Your task to perform on an android device: turn on airplane mode Image 0: 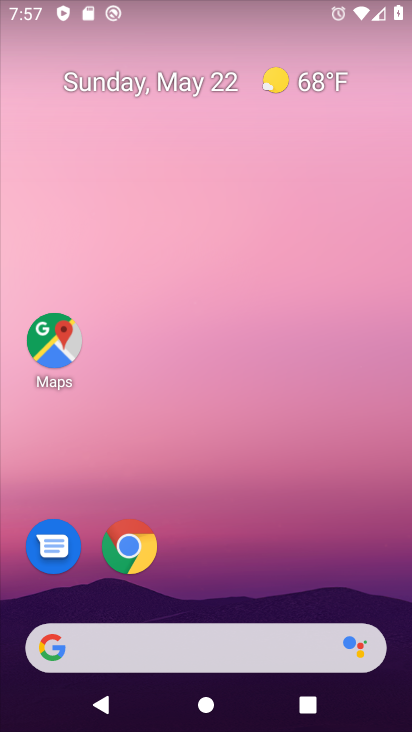
Step 0: click (154, 254)
Your task to perform on an android device: turn on airplane mode Image 1: 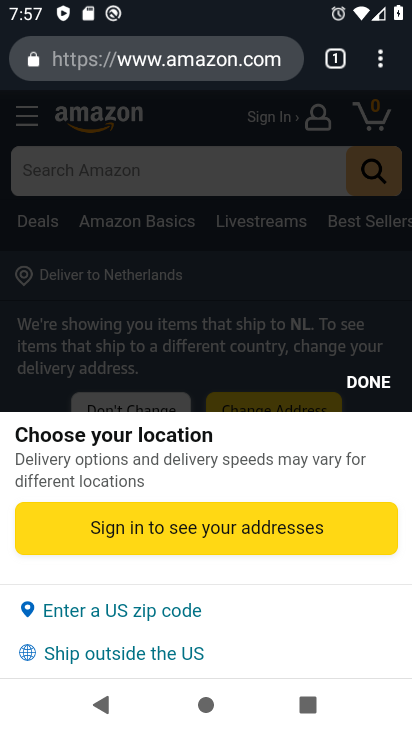
Step 1: press back button
Your task to perform on an android device: turn on airplane mode Image 2: 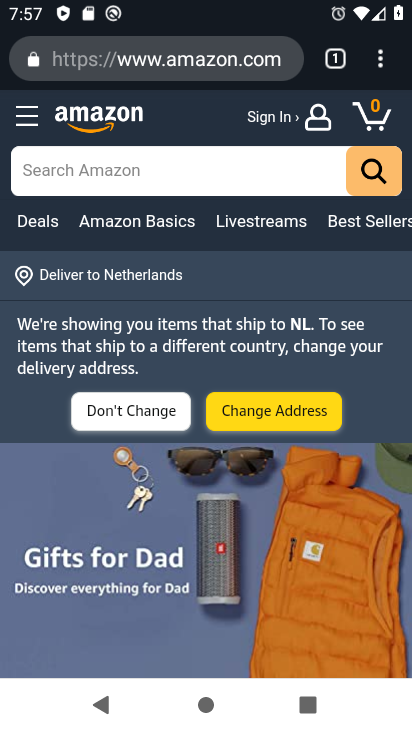
Step 2: press home button
Your task to perform on an android device: turn on airplane mode Image 3: 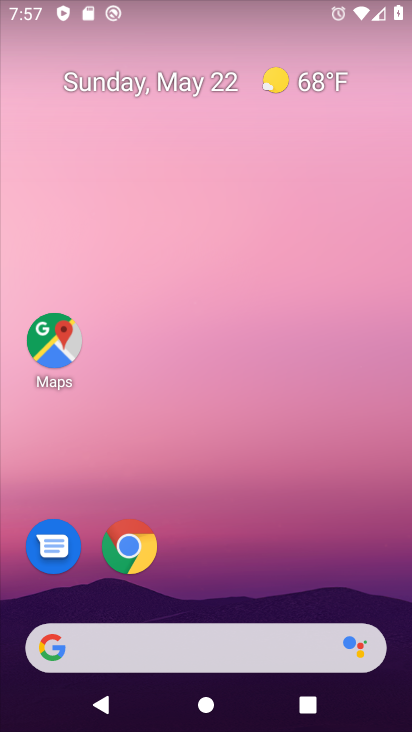
Step 3: drag from (251, 658) to (164, 41)
Your task to perform on an android device: turn on airplane mode Image 4: 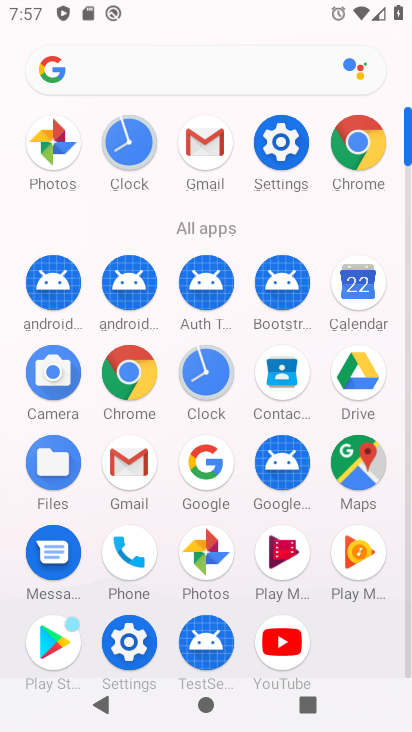
Step 4: click (289, 151)
Your task to perform on an android device: turn on airplane mode Image 5: 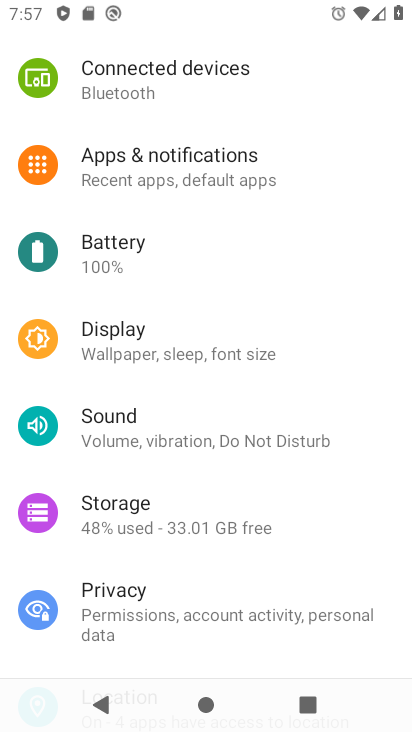
Step 5: drag from (139, 132) to (191, 507)
Your task to perform on an android device: turn on airplane mode Image 6: 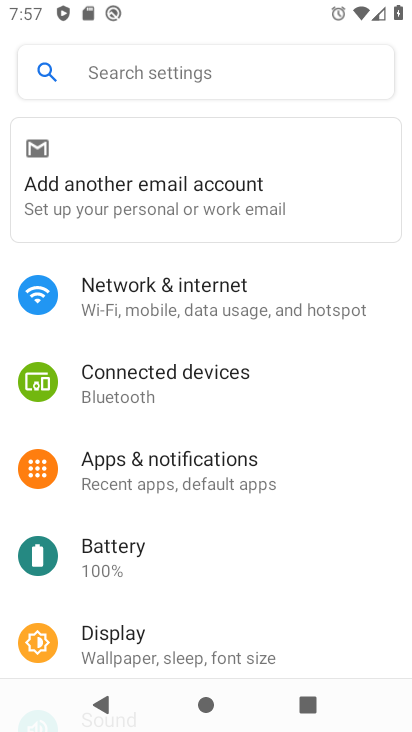
Step 6: click (187, 296)
Your task to perform on an android device: turn on airplane mode Image 7: 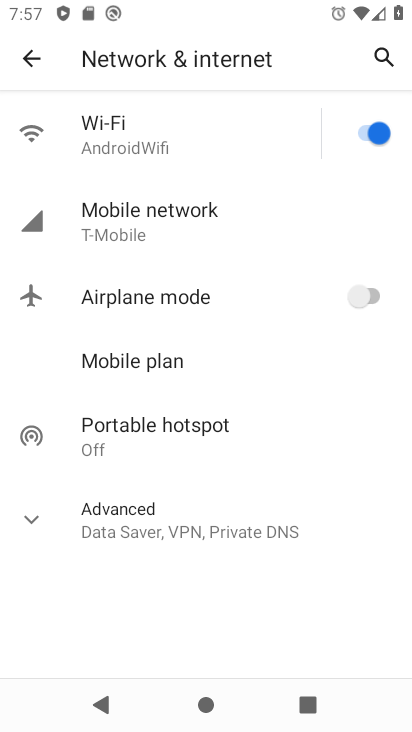
Step 7: click (347, 299)
Your task to perform on an android device: turn on airplane mode Image 8: 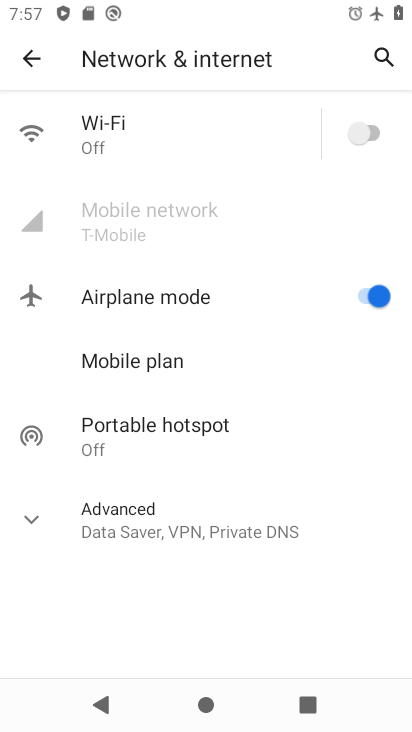
Step 8: task complete